Your task to perform on an android device: turn off sleep mode Image 0: 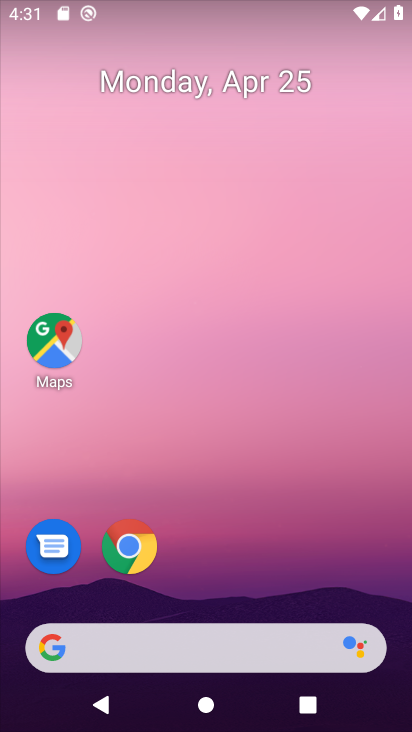
Step 0: drag from (328, 370) to (410, 152)
Your task to perform on an android device: turn off sleep mode Image 1: 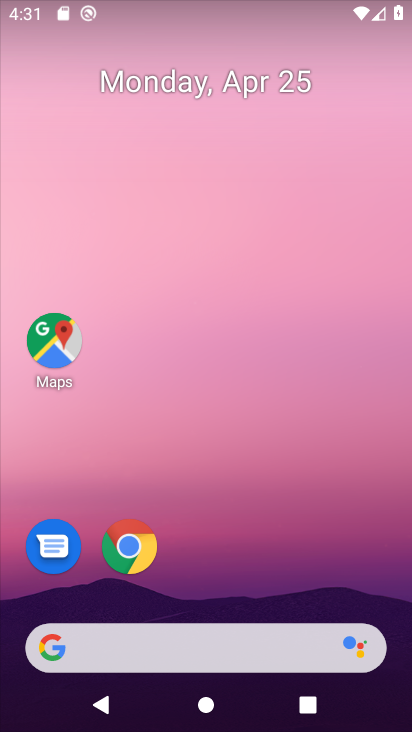
Step 1: drag from (316, 393) to (366, 0)
Your task to perform on an android device: turn off sleep mode Image 2: 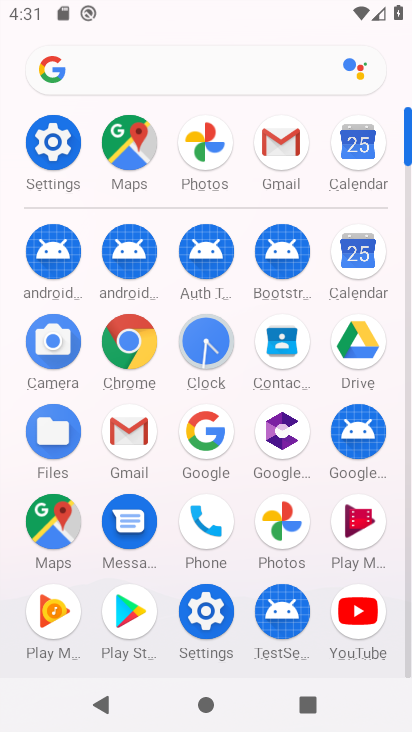
Step 2: click (47, 137)
Your task to perform on an android device: turn off sleep mode Image 3: 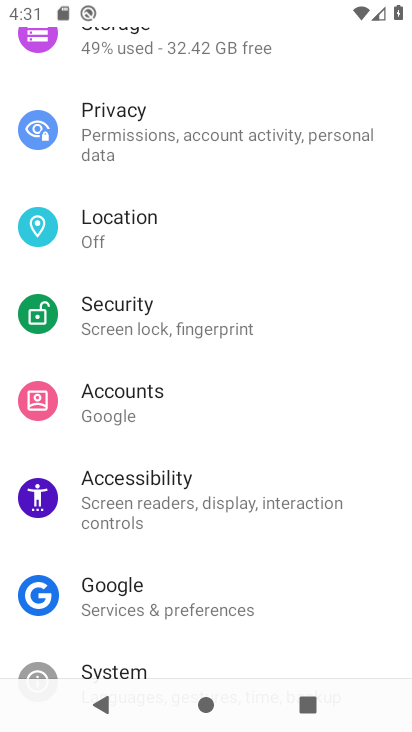
Step 3: drag from (189, 197) to (287, 597)
Your task to perform on an android device: turn off sleep mode Image 4: 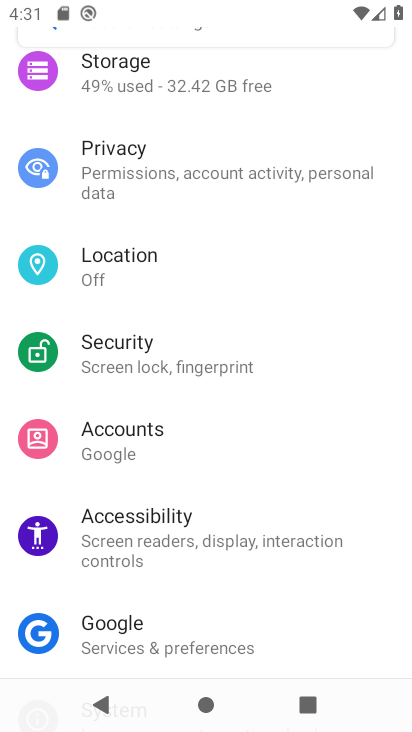
Step 4: drag from (282, 372) to (316, 612)
Your task to perform on an android device: turn off sleep mode Image 5: 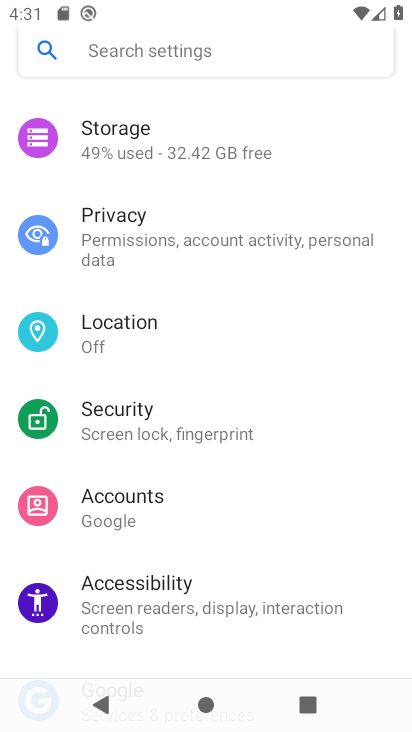
Step 5: drag from (315, 216) to (356, 446)
Your task to perform on an android device: turn off sleep mode Image 6: 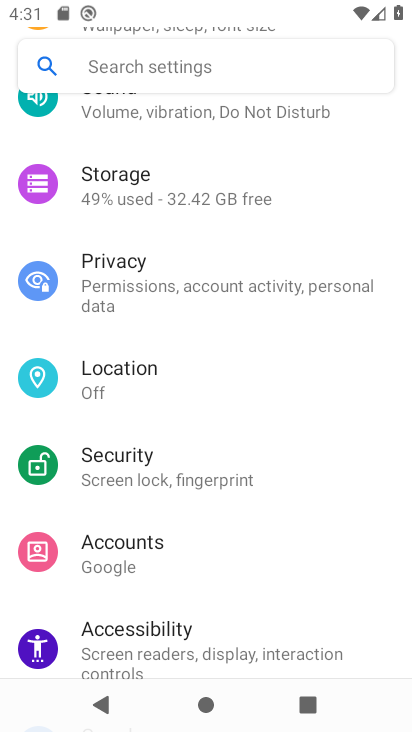
Step 6: drag from (341, 211) to (329, 516)
Your task to perform on an android device: turn off sleep mode Image 7: 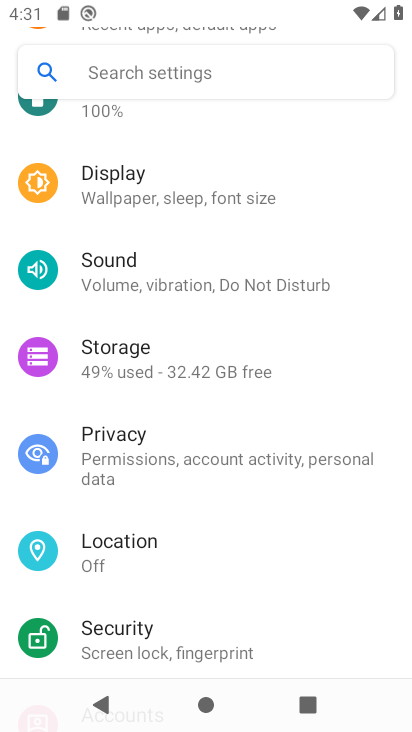
Step 7: drag from (348, 330) to (342, 590)
Your task to perform on an android device: turn off sleep mode Image 8: 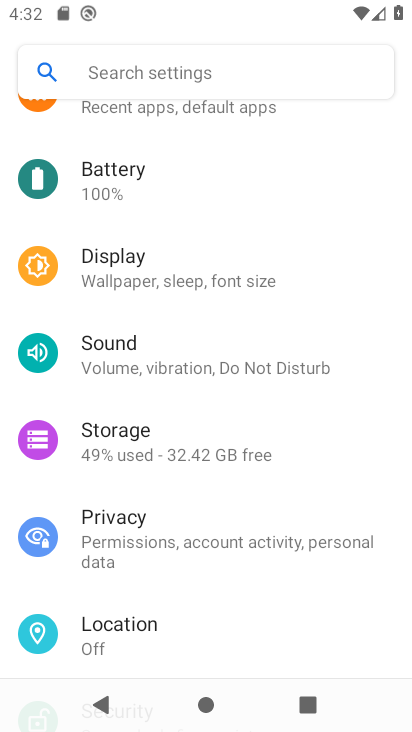
Step 8: click (169, 259)
Your task to perform on an android device: turn off sleep mode Image 9: 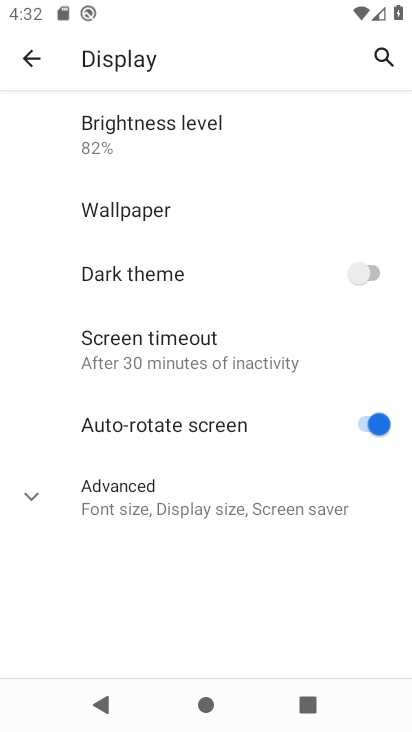
Step 9: click (149, 509)
Your task to perform on an android device: turn off sleep mode Image 10: 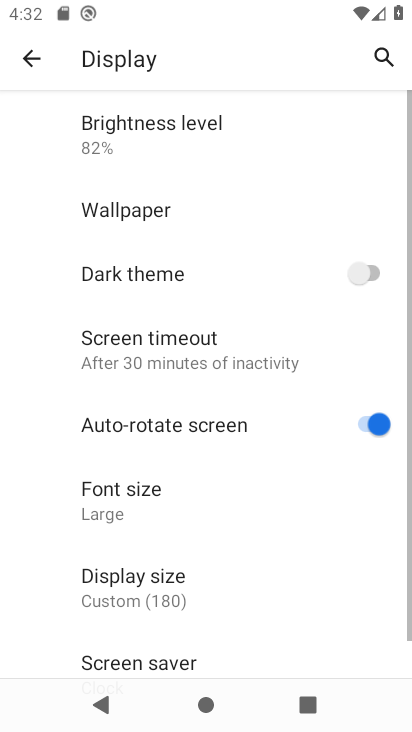
Step 10: task complete